Your task to perform on an android device: Open the web browser Image 0: 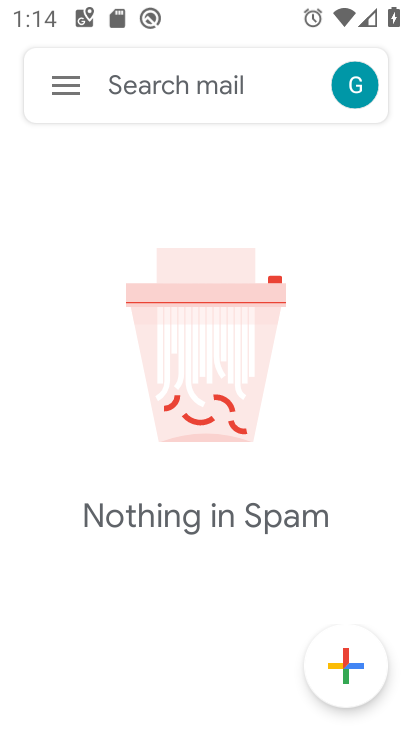
Step 0: press home button
Your task to perform on an android device: Open the web browser Image 1: 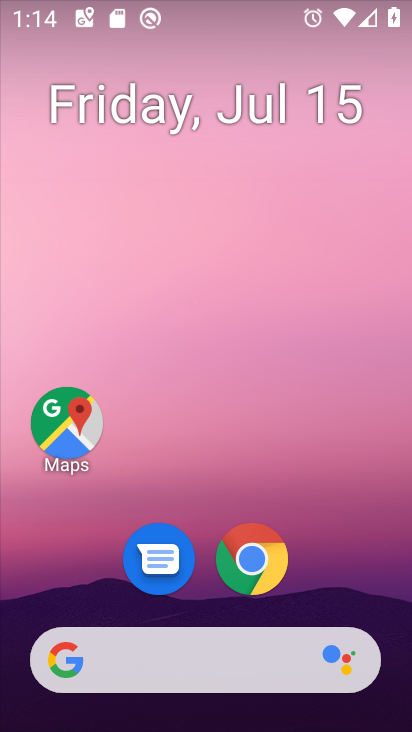
Step 1: drag from (351, 587) to (368, 165)
Your task to perform on an android device: Open the web browser Image 2: 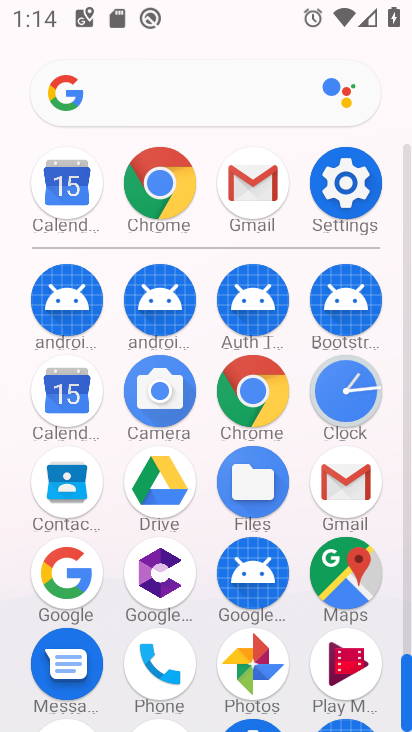
Step 2: click (251, 401)
Your task to perform on an android device: Open the web browser Image 3: 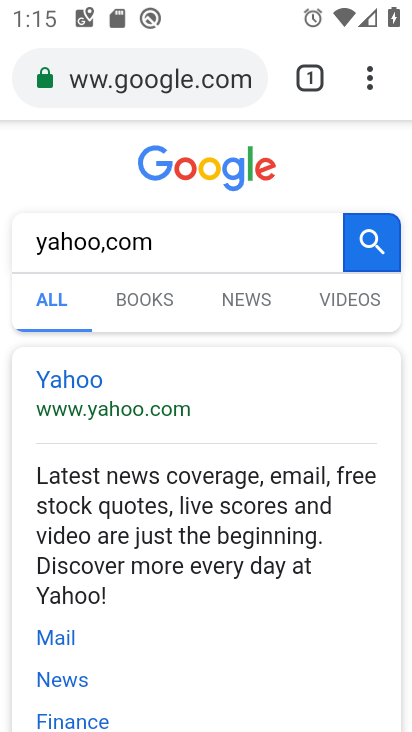
Step 3: task complete